Your task to perform on an android device: turn on wifi Image 0: 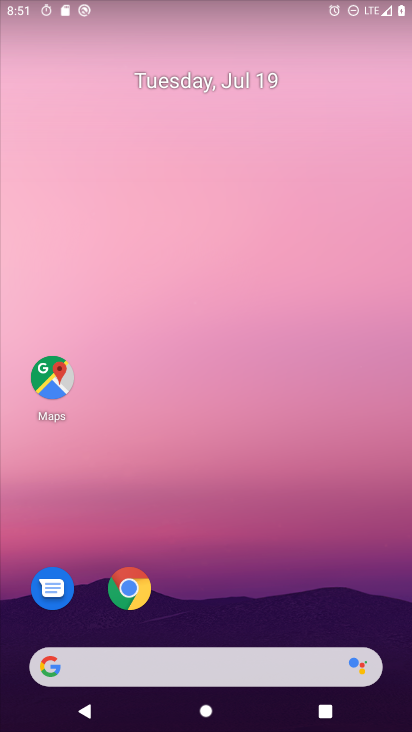
Step 0: drag from (347, 2) to (333, 597)
Your task to perform on an android device: turn on wifi Image 1: 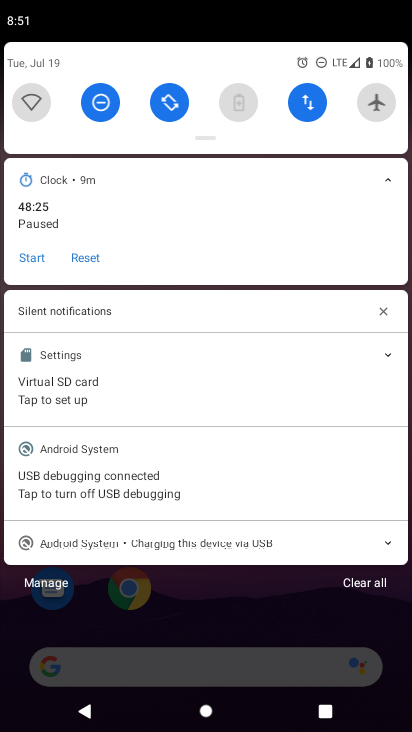
Step 1: click (18, 110)
Your task to perform on an android device: turn on wifi Image 2: 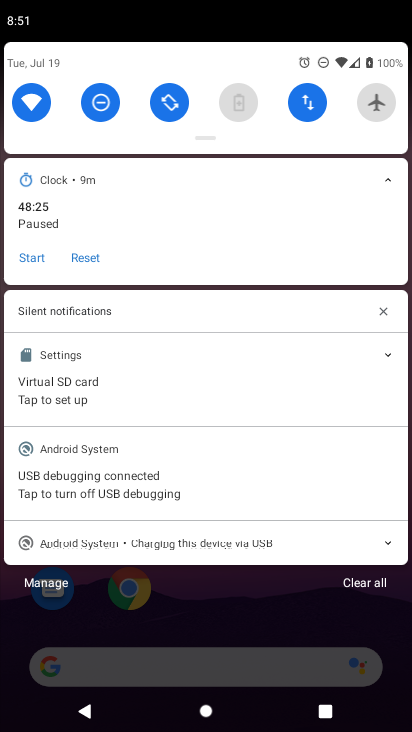
Step 2: task complete